Your task to perform on an android device: change text size in settings app Image 0: 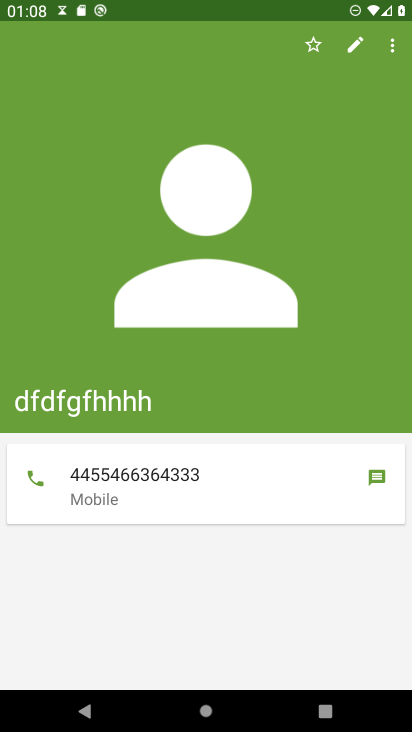
Step 0: press home button
Your task to perform on an android device: change text size in settings app Image 1: 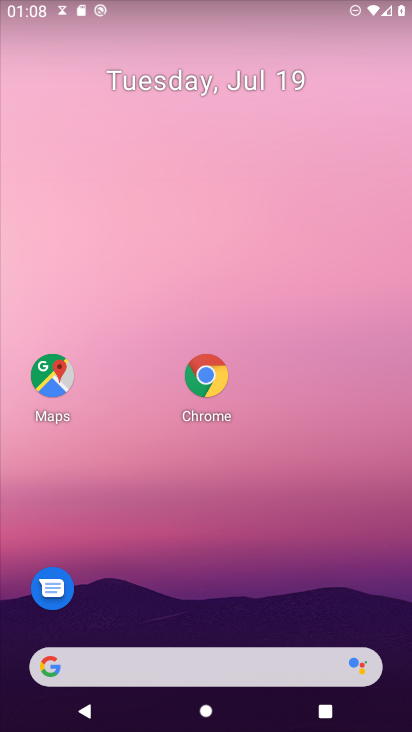
Step 1: drag from (313, 531) to (383, 39)
Your task to perform on an android device: change text size in settings app Image 2: 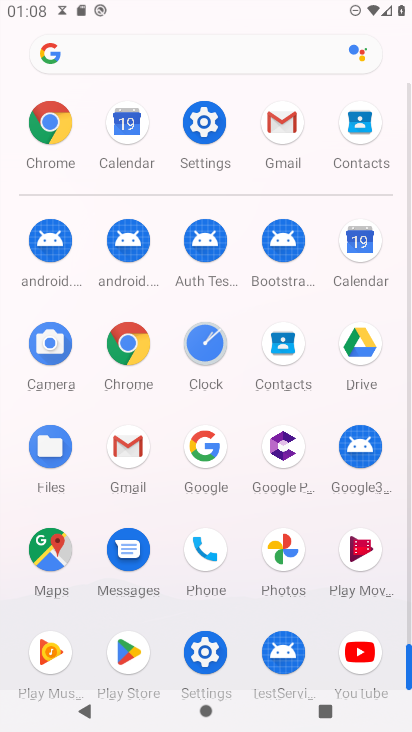
Step 2: click (203, 660)
Your task to perform on an android device: change text size in settings app Image 3: 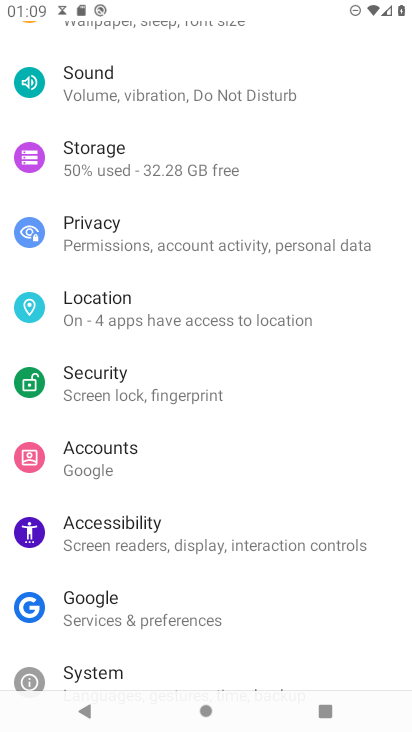
Step 3: drag from (150, 126) to (137, 334)
Your task to perform on an android device: change text size in settings app Image 4: 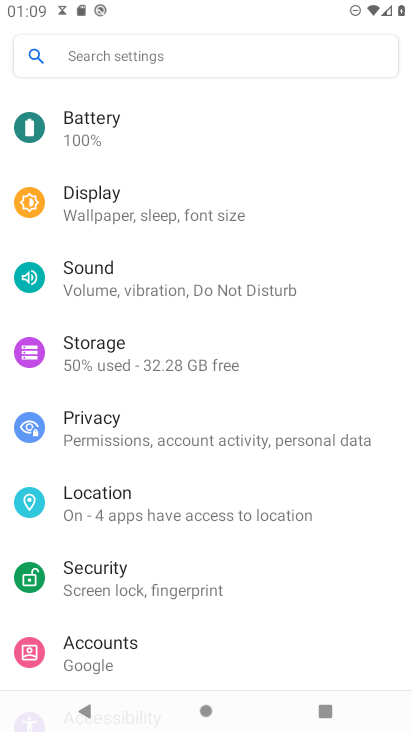
Step 4: click (116, 210)
Your task to perform on an android device: change text size in settings app Image 5: 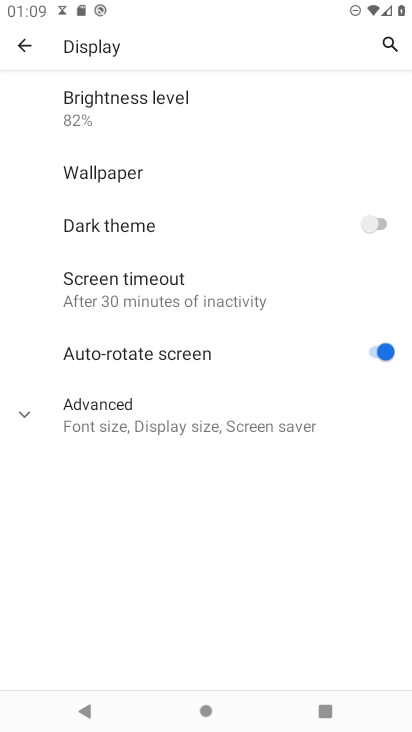
Step 5: click (86, 412)
Your task to perform on an android device: change text size in settings app Image 6: 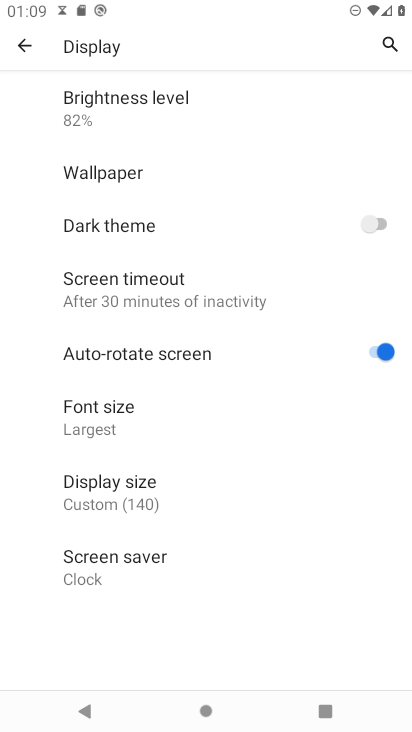
Step 6: click (100, 412)
Your task to perform on an android device: change text size in settings app Image 7: 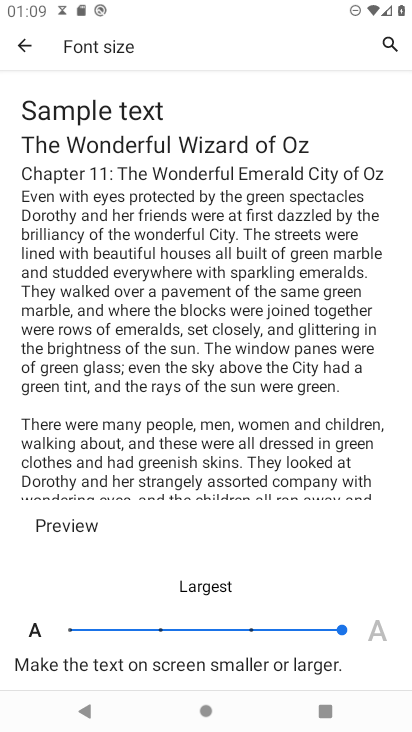
Step 7: click (251, 629)
Your task to perform on an android device: change text size in settings app Image 8: 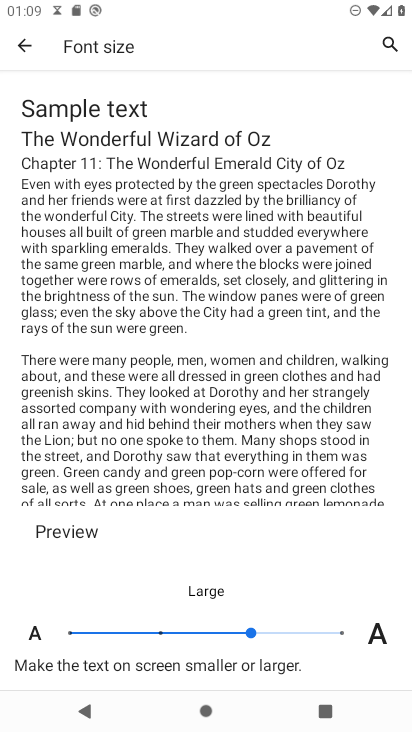
Step 8: task complete